Your task to perform on an android device: open chrome privacy settings Image 0: 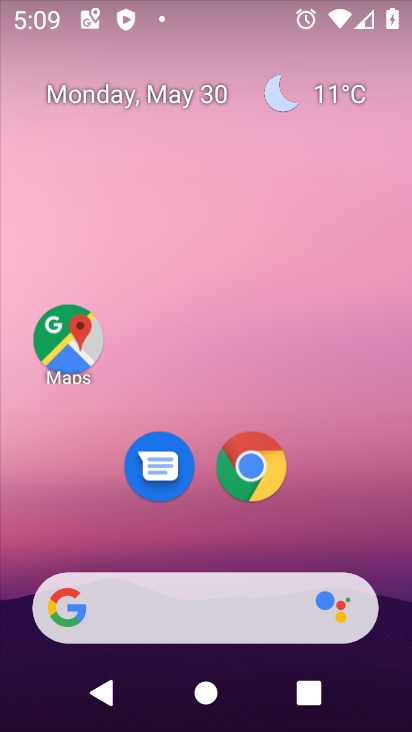
Step 0: drag from (365, 539) to (277, 106)
Your task to perform on an android device: open chrome privacy settings Image 1: 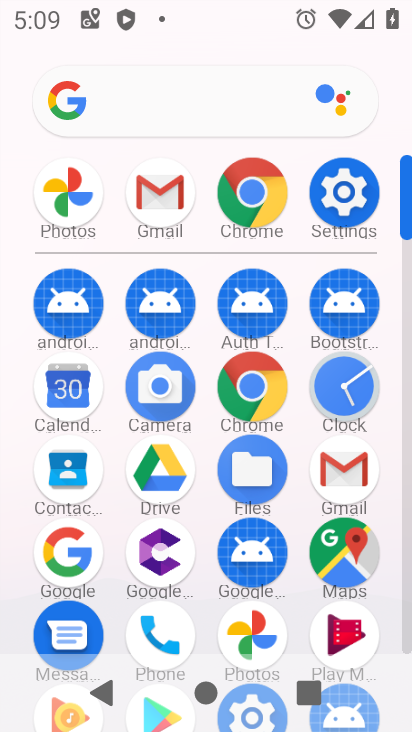
Step 1: click (341, 189)
Your task to perform on an android device: open chrome privacy settings Image 2: 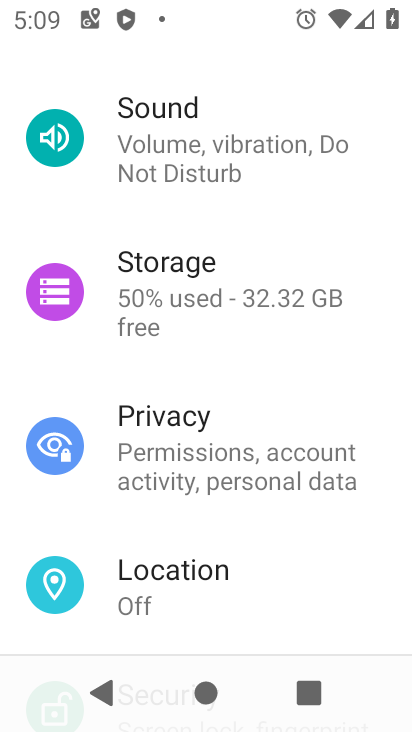
Step 2: click (217, 442)
Your task to perform on an android device: open chrome privacy settings Image 3: 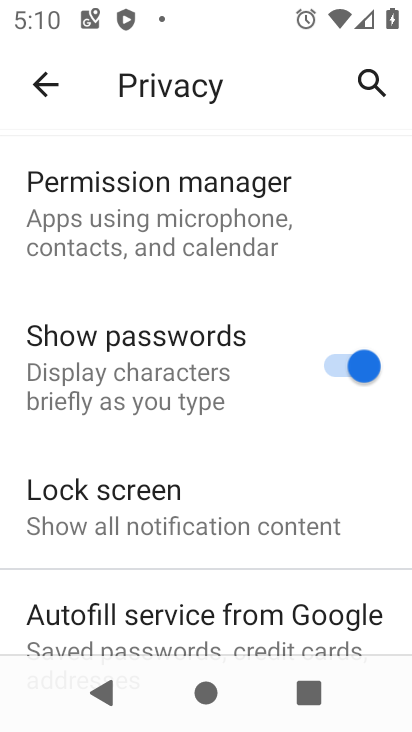
Step 3: task complete